Your task to perform on an android device: find snoozed emails in the gmail app Image 0: 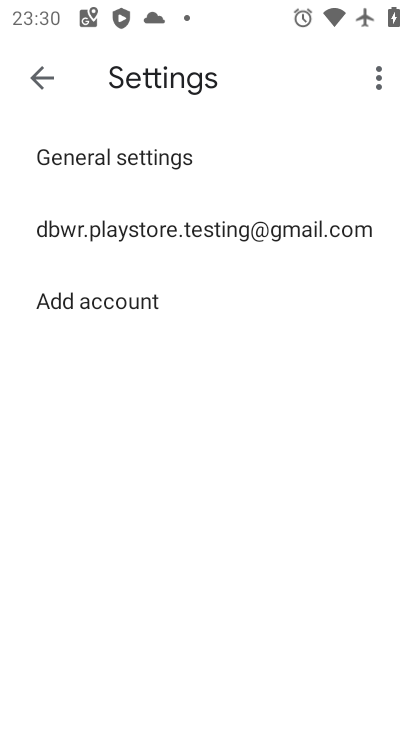
Step 0: press home button
Your task to perform on an android device: find snoozed emails in the gmail app Image 1: 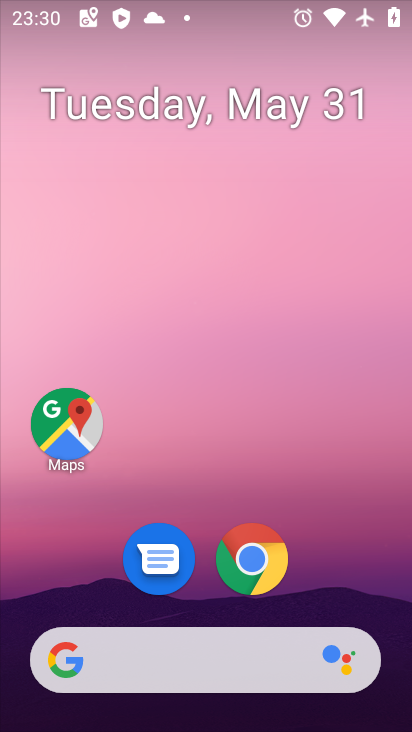
Step 1: drag from (335, 573) to (332, 111)
Your task to perform on an android device: find snoozed emails in the gmail app Image 2: 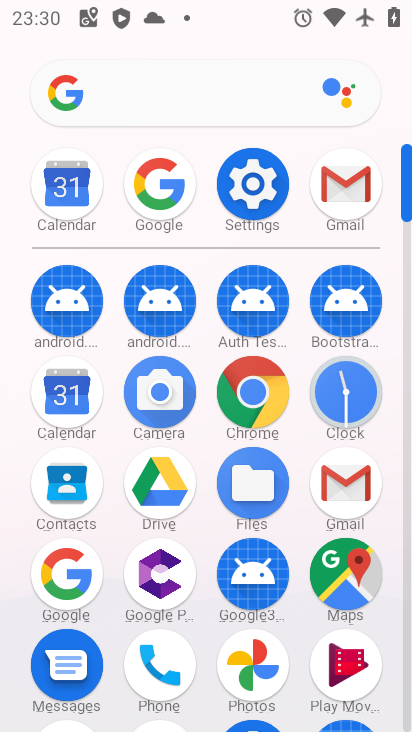
Step 2: click (345, 187)
Your task to perform on an android device: find snoozed emails in the gmail app Image 3: 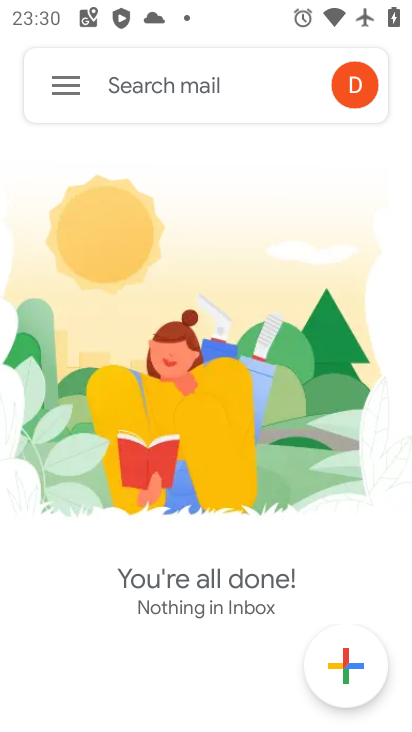
Step 3: click (71, 91)
Your task to perform on an android device: find snoozed emails in the gmail app Image 4: 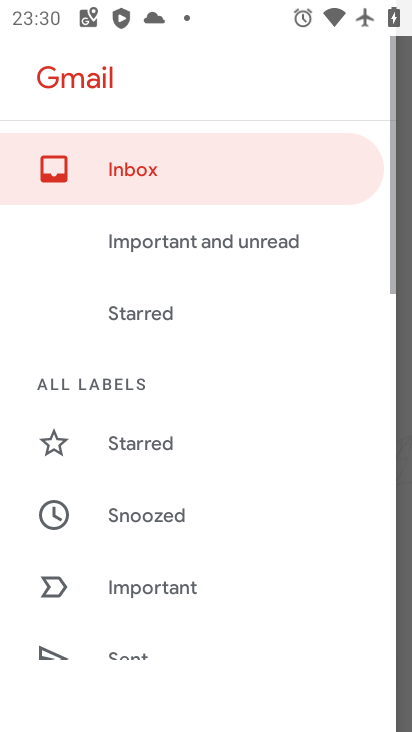
Step 4: drag from (189, 625) to (217, 337)
Your task to perform on an android device: find snoozed emails in the gmail app Image 5: 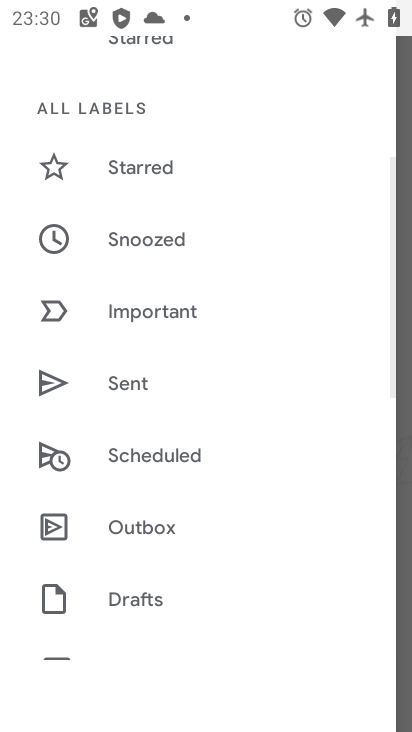
Step 5: drag from (208, 587) to (216, 328)
Your task to perform on an android device: find snoozed emails in the gmail app Image 6: 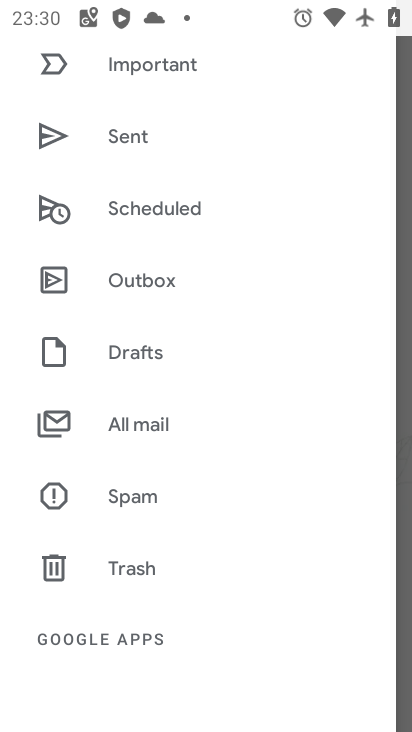
Step 6: click (148, 414)
Your task to perform on an android device: find snoozed emails in the gmail app Image 7: 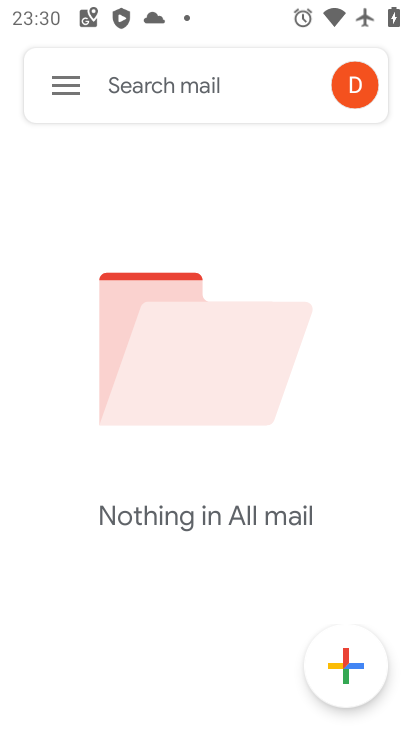
Step 7: task complete